Your task to perform on an android device: find photos in the google photos app Image 0: 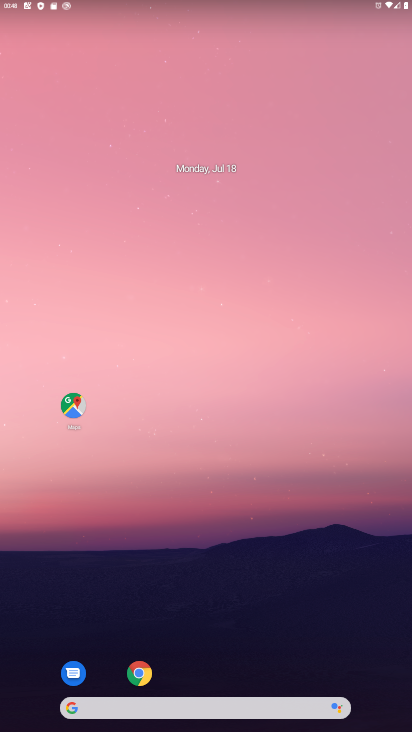
Step 0: drag from (236, 428) to (222, 161)
Your task to perform on an android device: find photos in the google photos app Image 1: 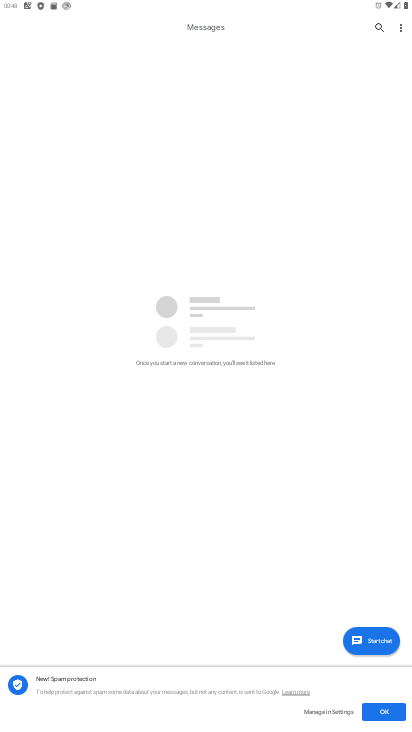
Step 1: press home button
Your task to perform on an android device: find photos in the google photos app Image 2: 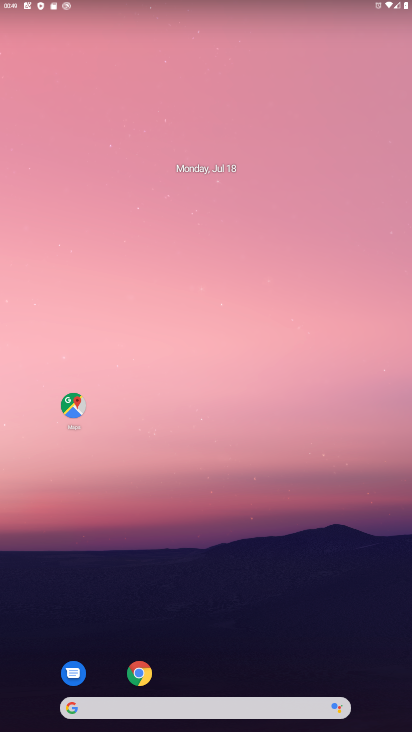
Step 2: drag from (243, 663) to (255, 159)
Your task to perform on an android device: find photos in the google photos app Image 3: 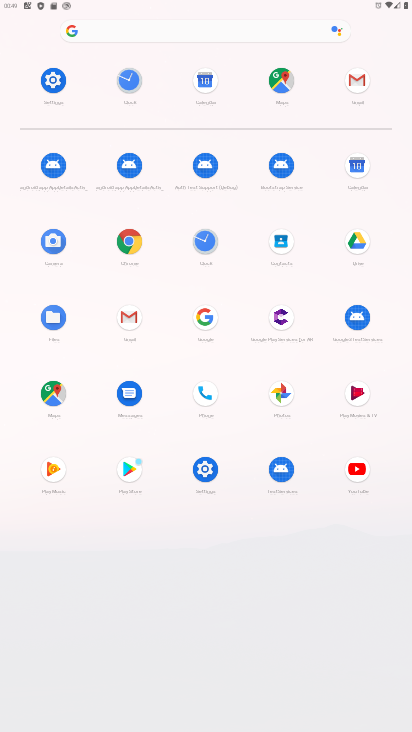
Step 3: click (287, 401)
Your task to perform on an android device: find photos in the google photos app Image 4: 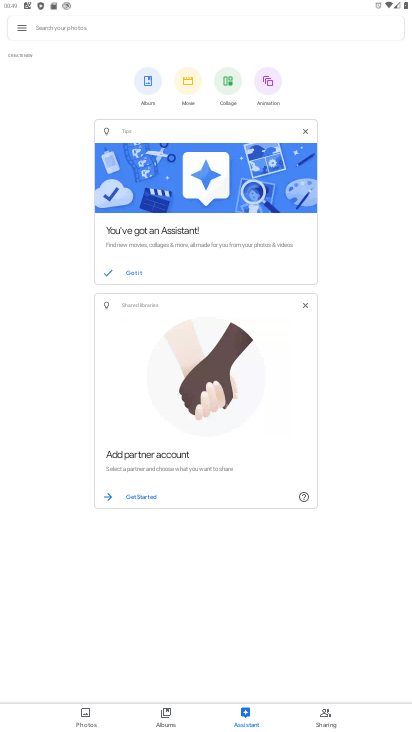
Step 4: task complete